Your task to perform on an android device: Open location settings Image 0: 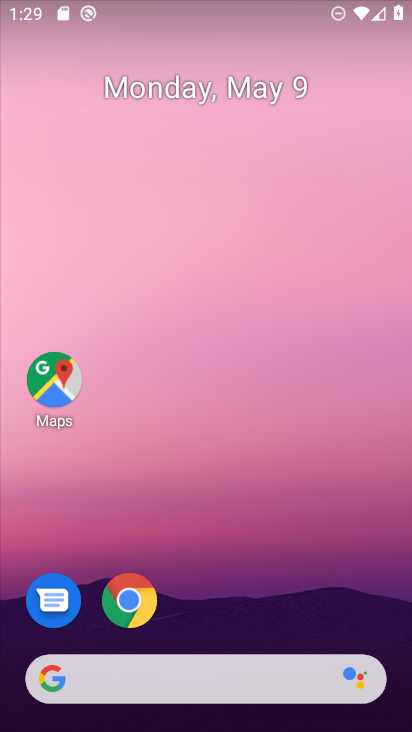
Step 0: drag from (206, 695) to (370, 43)
Your task to perform on an android device: Open location settings Image 1: 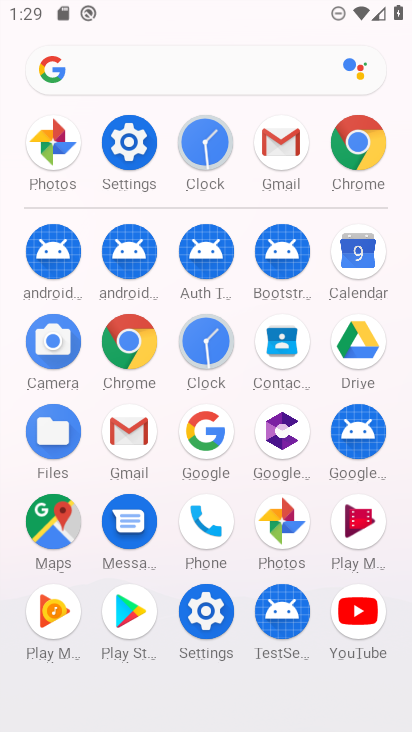
Step 1: click (131, 153)
Your task to perform on an android device: Open location settings Image 2: 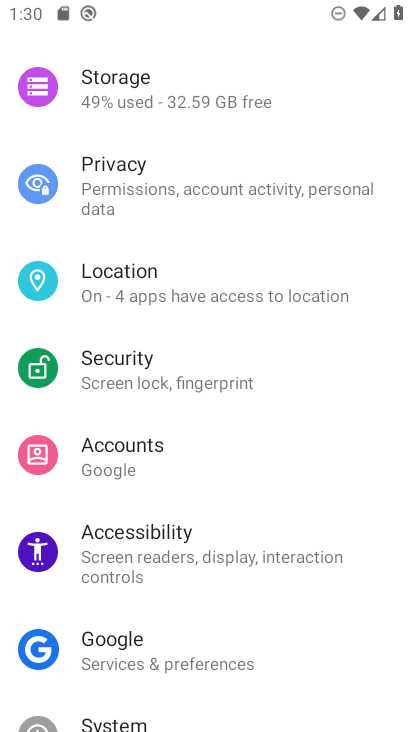
Step 2: click (208, 299)
Your task to perform on an android device: Open location settings Image 3: 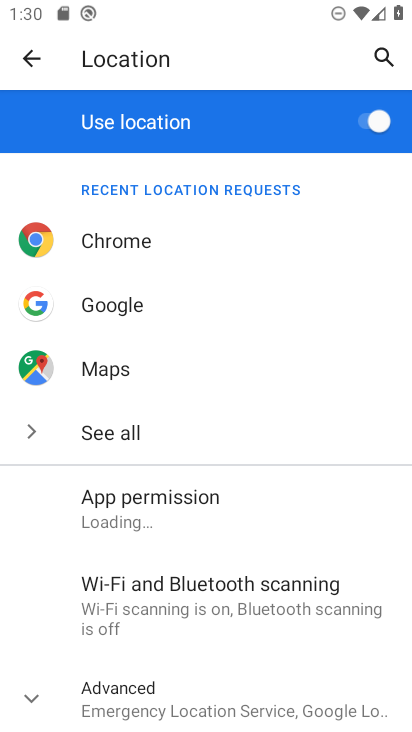
Step 3: task complete